Your task to perform on an android device: Go to privacy settings Image 0: 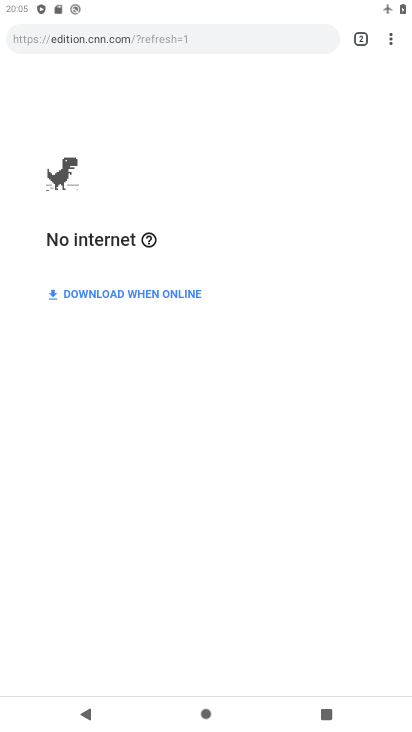
Step 0: press home button
Your task to perform on an android device: Go to privacy settings Image 1: 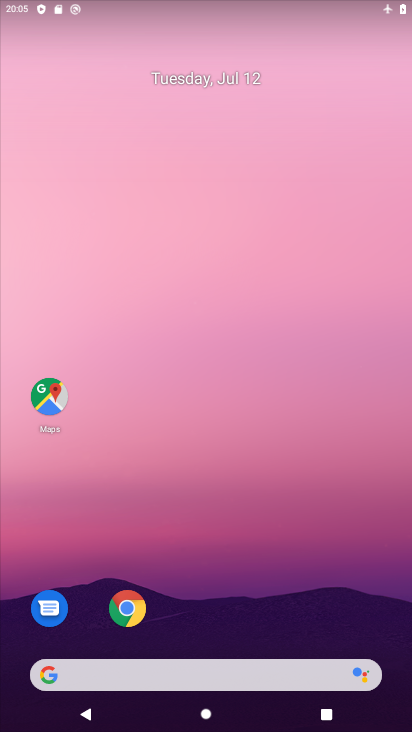
Step 1: drag from (234, 652) to (203, 88)
Your task to perform on an android device: Go to privacy settings Image 2: 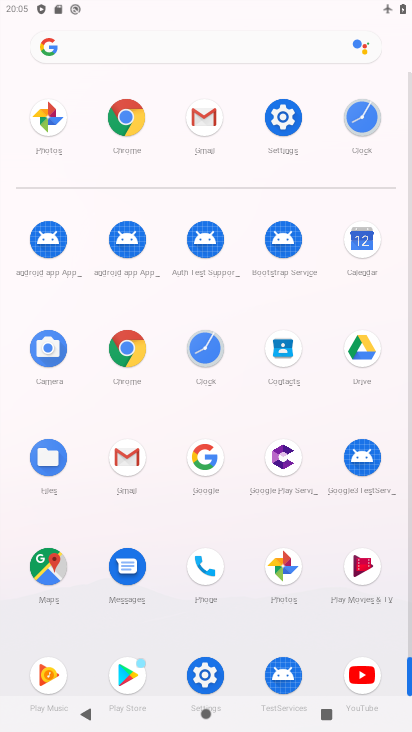
Step 2: click (267, 110)
Your task to perform on an android device: Go to privacy settings Image 3: 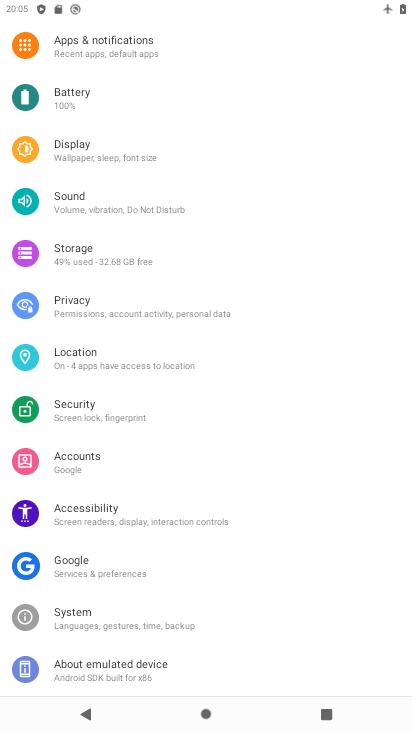
Step 3: click (85, 314)
Your task to perform on an android device: Go to privacy settings Image 4: 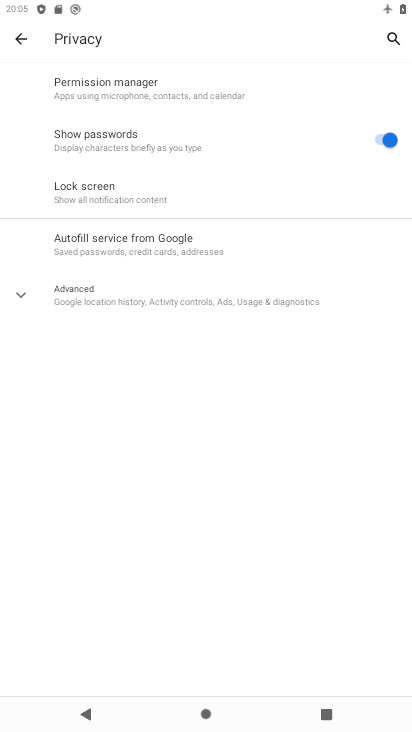
Step 4: click (168, 280)
Your task to perform on an android device: Go to privacy settings Image 5: 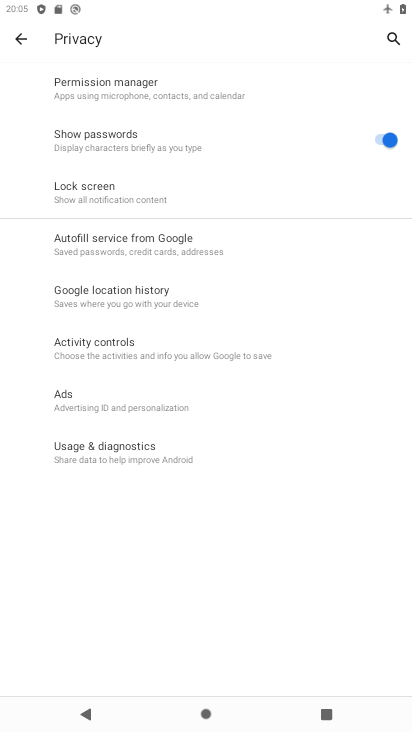
Step 5: task complete